Your task to perform on an android device: change alarm snooze length Image 0: 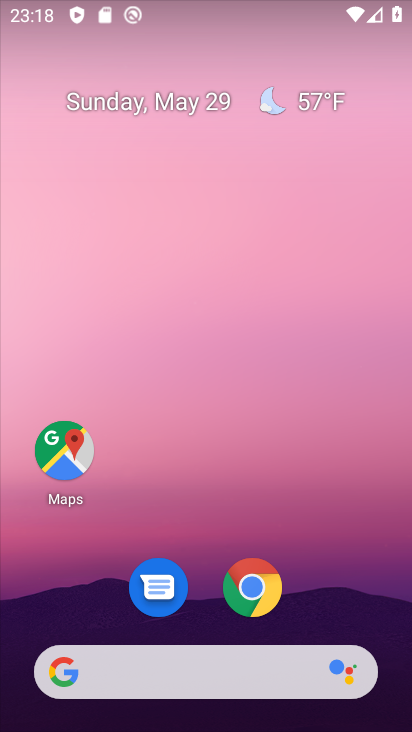
Step 0: drag from (334, 583) to (277, 189)
Your task to perform on an android device: change alarm snooze length Image 1: 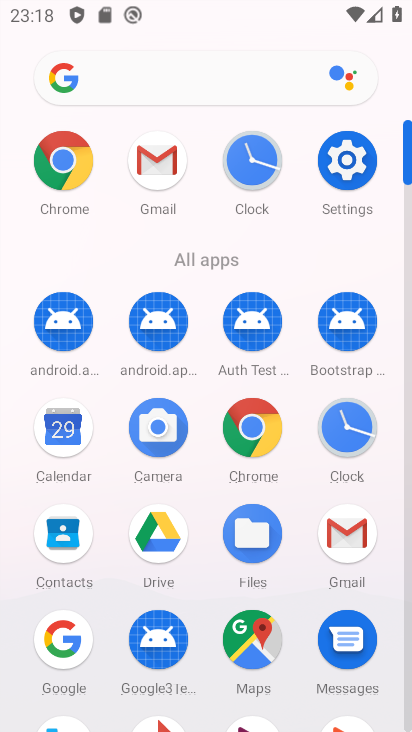
Step 1: click (357, 413)
Your task to perform on an android device: change alarm snooze length Image 2: 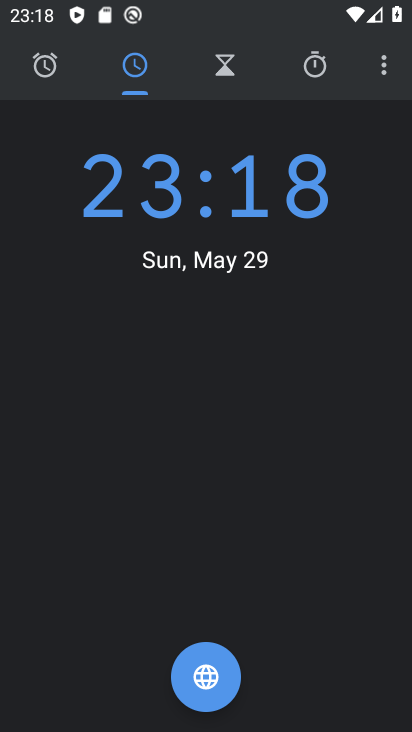
Step 2: click (388, 57)
Your task to perform on an android device: change alarm snooze length Image 3: 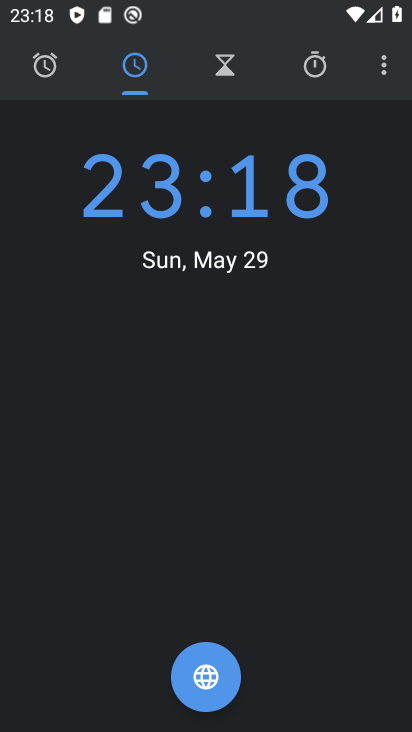
Step 3: click (385, 62)
Your task to perform on an android device: change alarm snooze length Image 4: 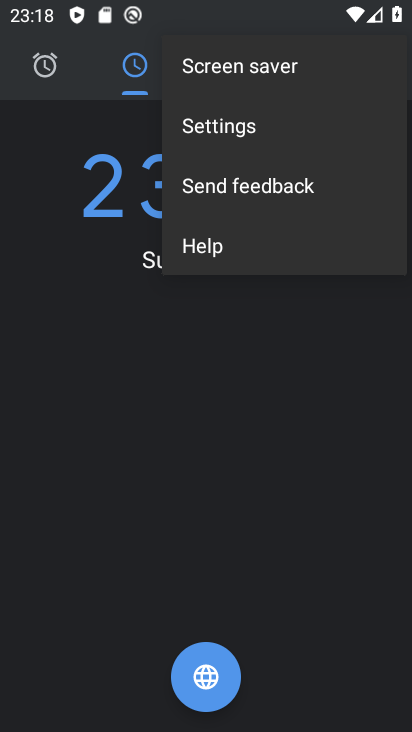
Step 4: click (329, 123)
Your task to perform on an android device: change alarm snooze length Image 5: 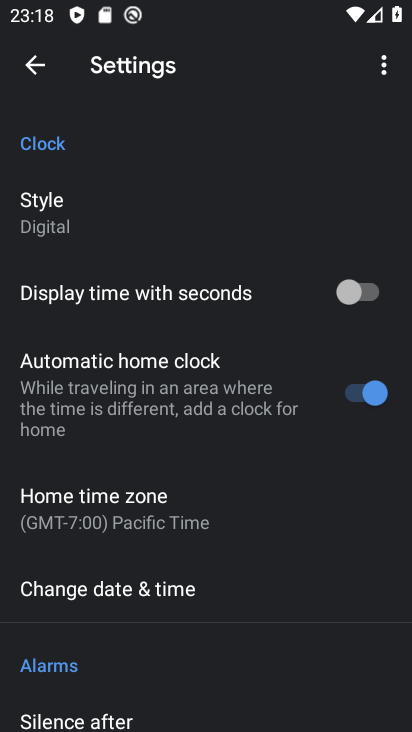
Step 5: drag from (228, 594) to (205, 135)
Your task to perform on an android device: change alarm snooze length Image 6: 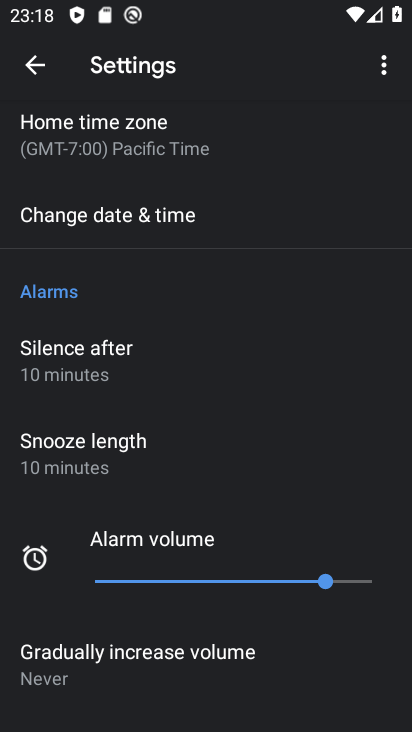
Step 6: click (202, 450)
Your task to perform on an android device: change alarm snooze length Image 7: 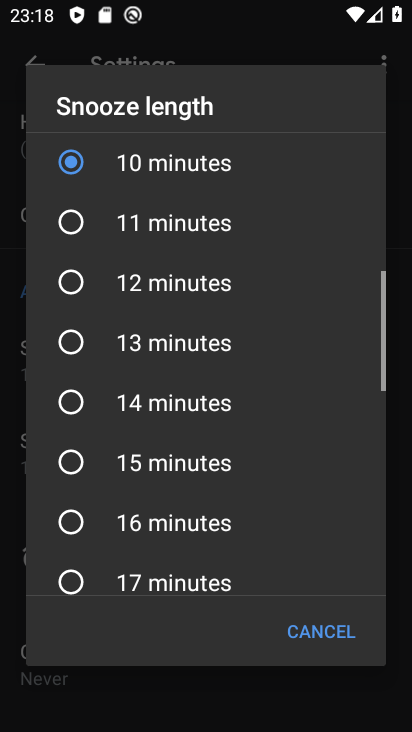
Step 7: click (202, 466)
Your task to perform on an android device: change alarm snooze length Image 8: 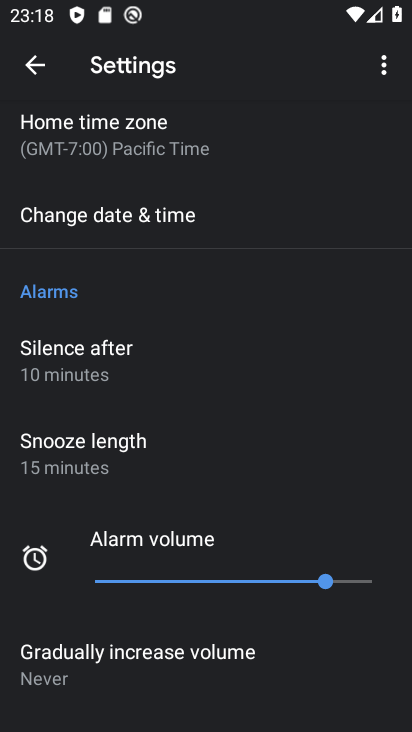
Step 8: task complete